Your task to perform on an android device: change notifications settings Image 0: 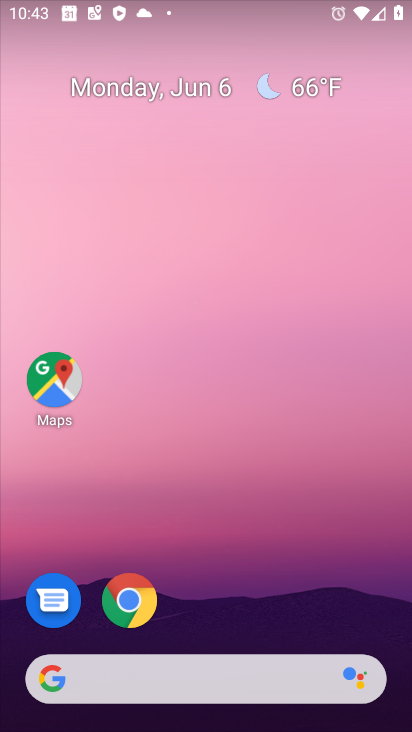
Step 0: drag from (32, 625) to (156, 183)
Your task to perform on an android device: change notifications settings Image 1: 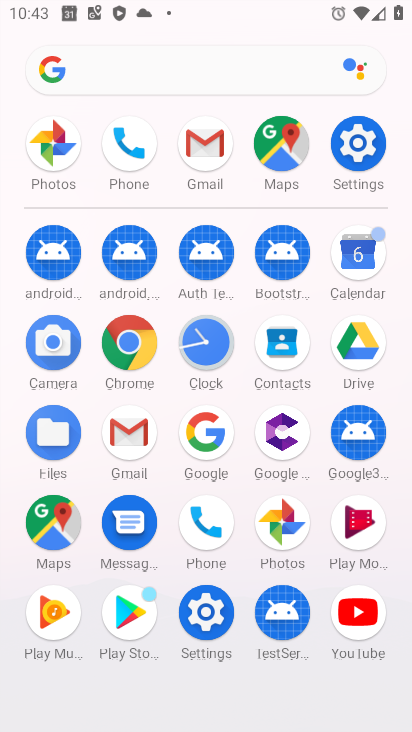
Step 1: click (344, 135)
Your task to perform on an android device: change notifications settings Image 2: 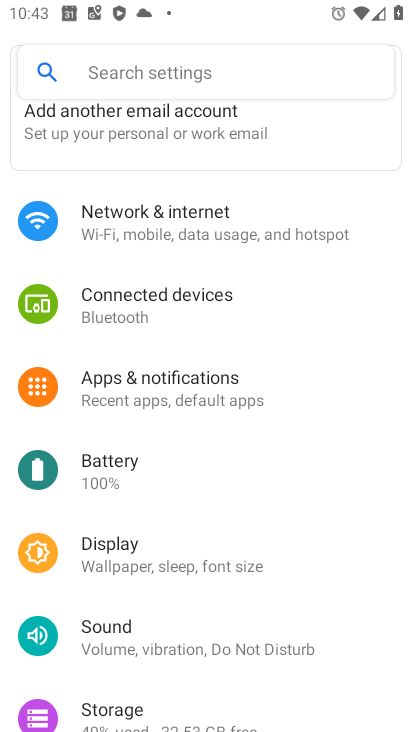
Step 2: click (200, 393)
Your task to perform on an android device: change notifications settings Image 3: 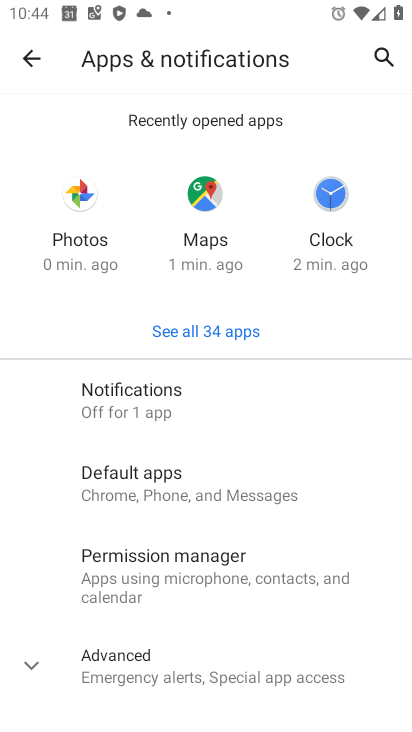
Step 3: click (190, 394)
Your task to perform on an android device: change notifications settings Image 4: 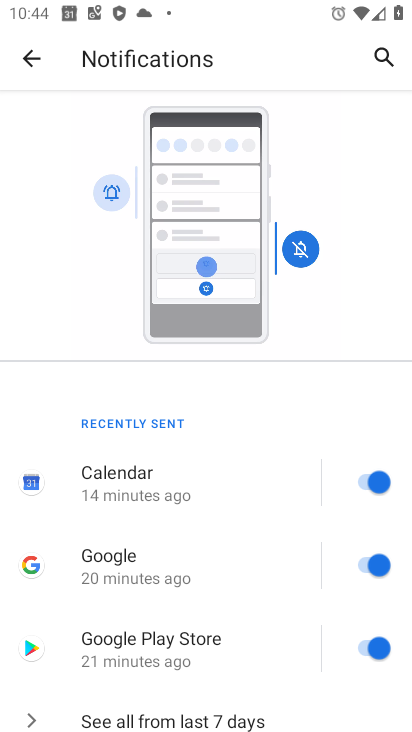
Step 4: task complete